Your task to perform on an android device: turn off notifications settings in the gmail app Image 0: 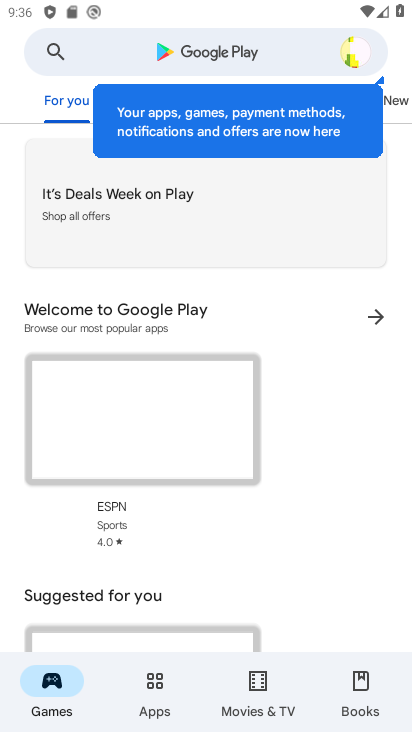
Step 0: press home button
Your task to perform on an android device: turn off notifications settings in the gmail app Image 1: 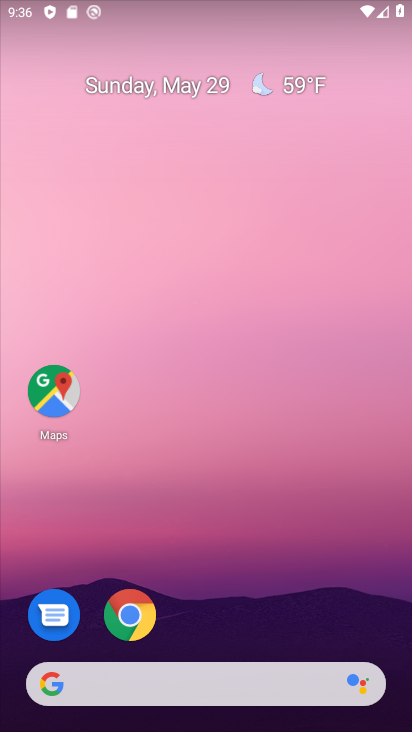
Step 1: drag from (213, 563) to (247, 94)
Your task to perform on an android device: turn off notifications settings in the gmail app Image 2: 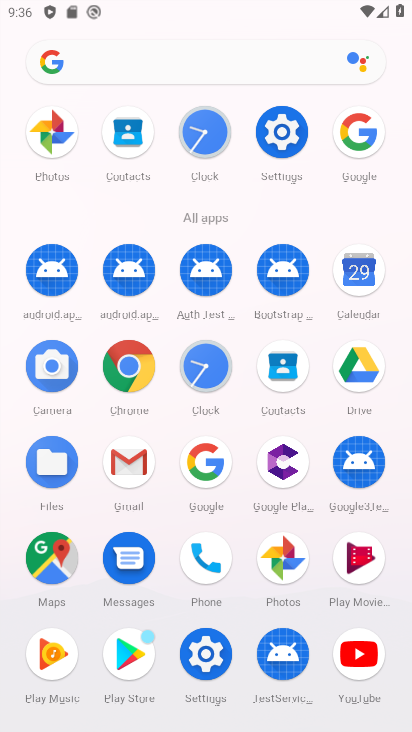
Step 2: click (123, 454)
Your task to perform on an android device: turn off notifications settings in the gmail app Image 3: 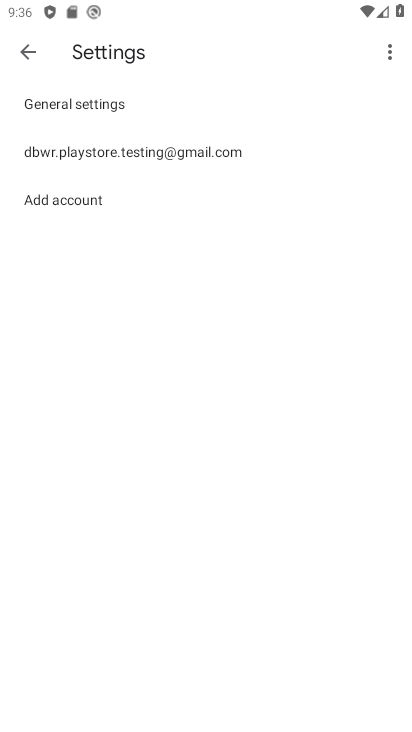
Step 3: click (100, 160)
Your task to perform on an android device: turn off notifications settings in the gmail app Image 4: 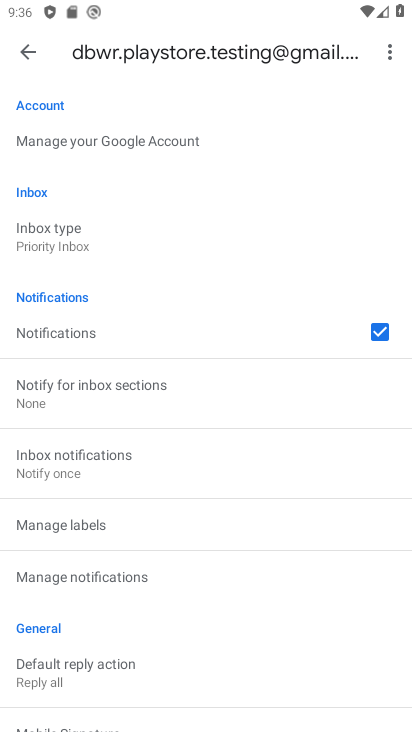
Step 4: click (372, 332)
Your task to perform on an android device: turn off notifications settings in the gmail app Image 5: 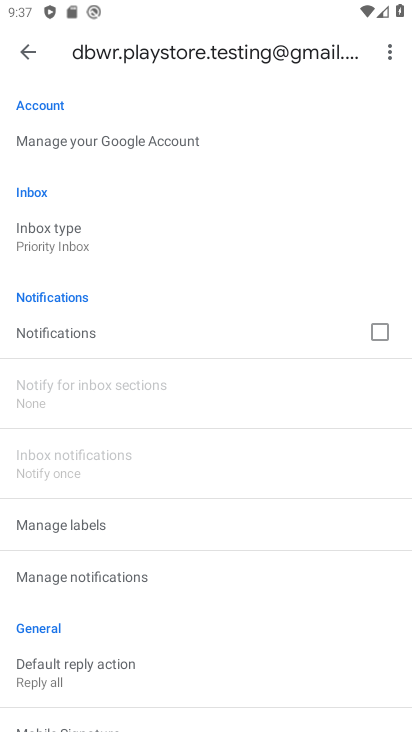
Step 5: task complete